Your task to perform on an android device: empty trash in google photos Image 0: 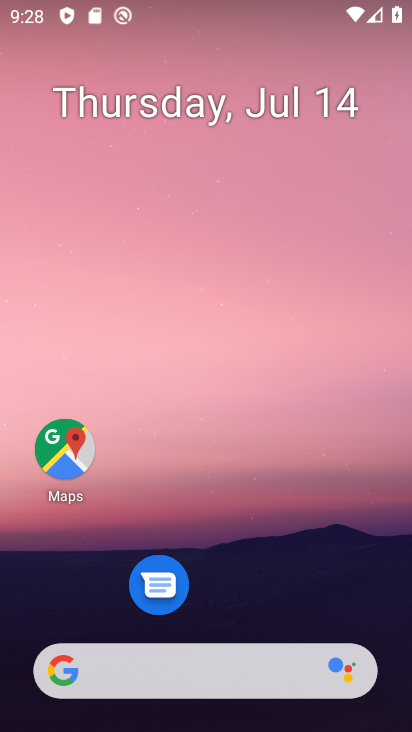
Step 0: drag from (279, 634) to (158, 35)
Your task to perform on an android device: empty trash in google photos Image 1: 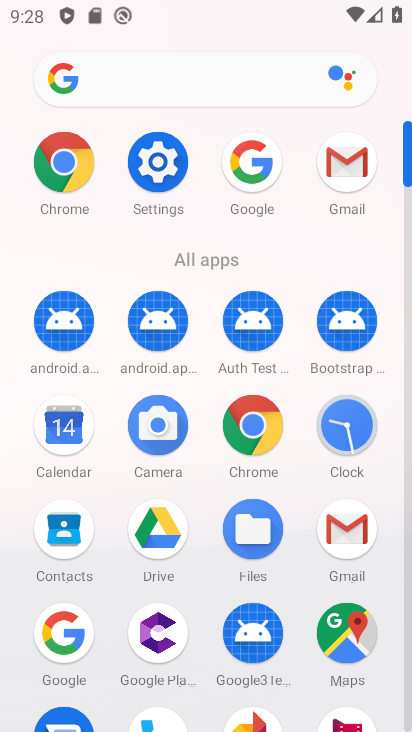
Step 1: click (248, 716)
Your task to perform on an android device: empty trash in google photos Image 2: 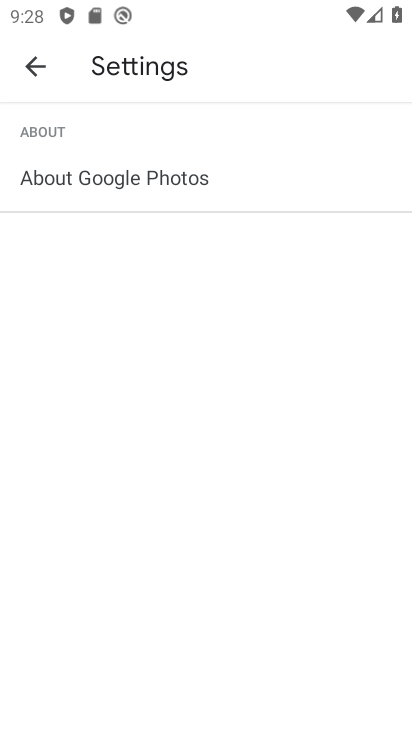
Step 2: click (41, 67)
Your task to perform on an android device: empty trash in google photos Image 3: 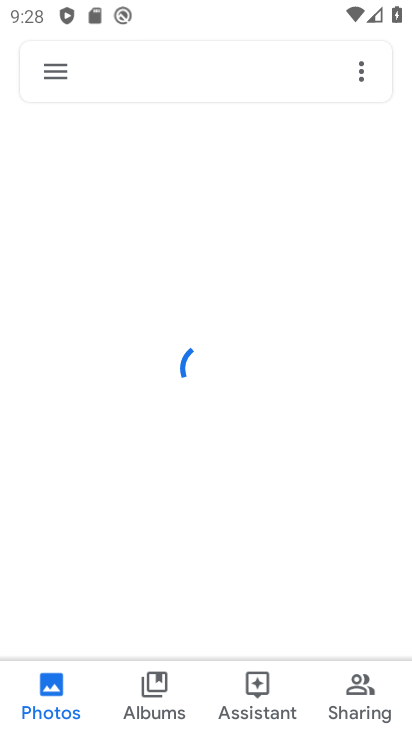
Step 3: click (41, 67)
Your task to perform on an android device: empty trash in google photos Image 4: 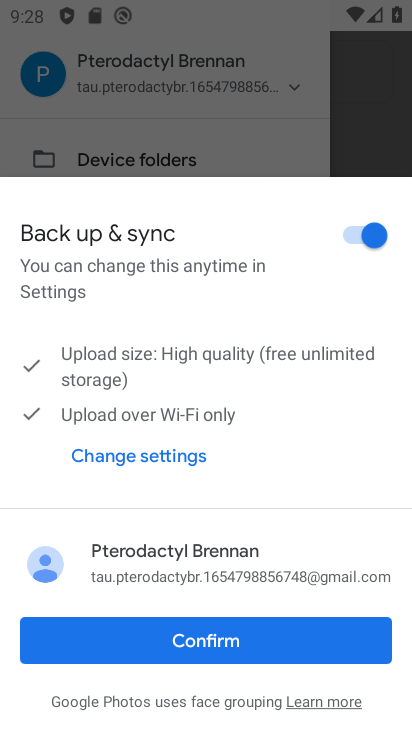
Step 4: click (182, 633)
Your task to perform on an android device: empty trash in google photos Image 5: 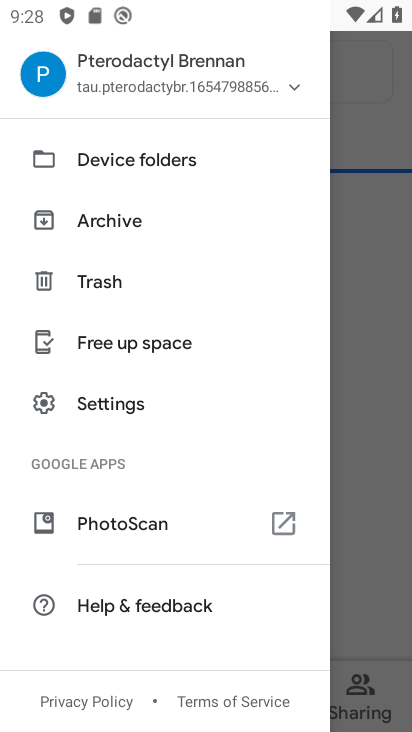
Step 5: click (72, 287)
Your task to perform on an android device: empty trash in google photos Image 6: 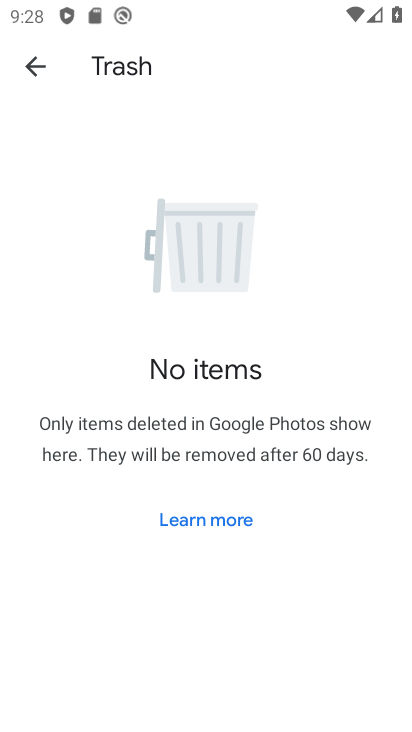
Step 6: task complete